Your task to perform on an android device: Open battery settings Image 0: 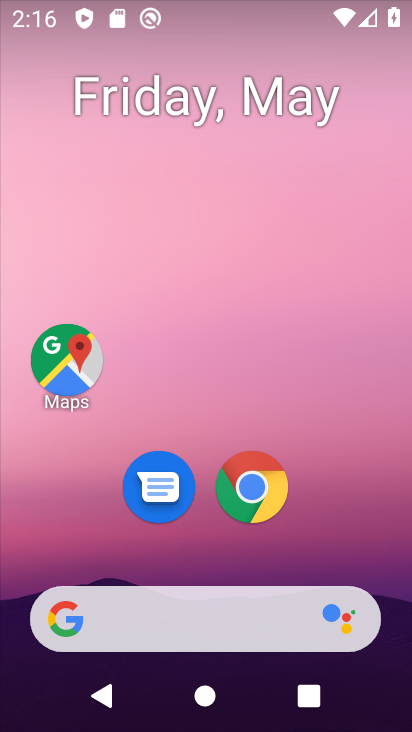
Step 0: drag from (236, 420) to (279, 45)
Your task to perform on an android device: Open battery settings Image 1: 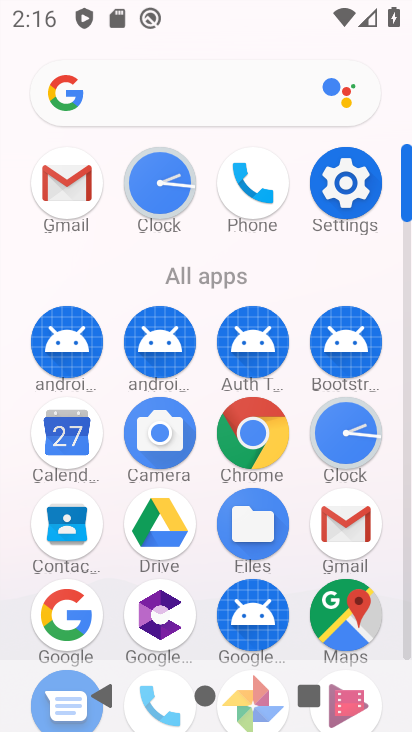
Step 1: click (332, 174)
Your task to perform on an android device: Open battery settings Image 2: 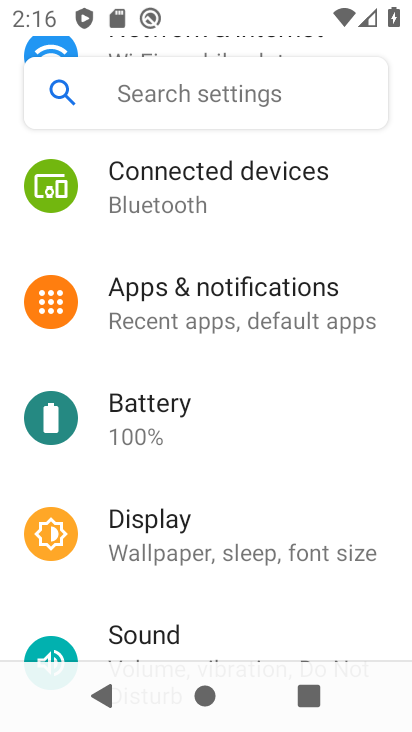
Step 2: click (155, 416)
Your task to perform on an android device: Open battery settings Image 3: 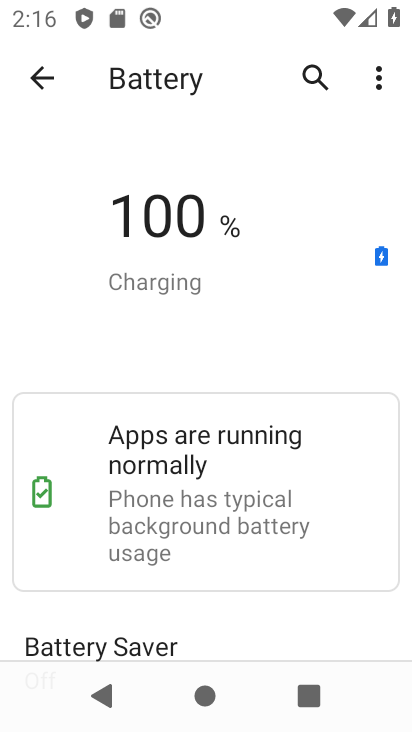
Step 3: task complete